Your task to perform on an android device: Is it going to rain today? Image 0: 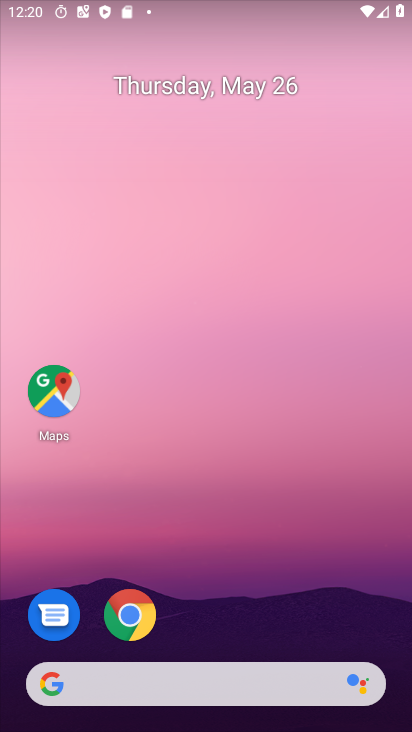
Step 0: drag from (240, 631) to (211, 219)
Your task to perform on an android device: Is it going to rain today? Image 1: 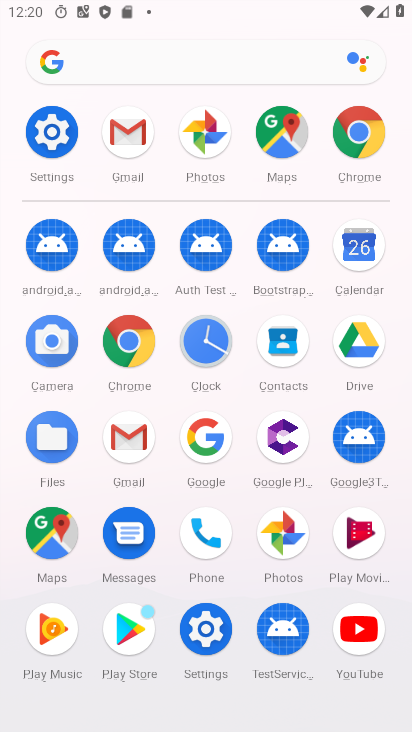
Step 1: click (284, 142)
Your task to perform on an android device: Is it going to rain today? Image 2: 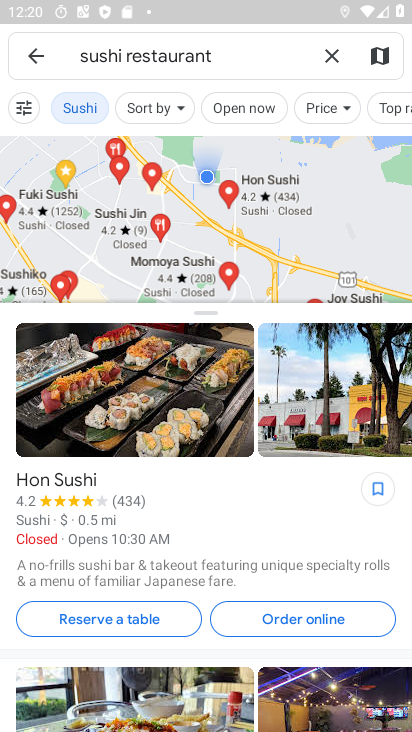
Step 2: press home button
Your task to perform on an android device: Is it going to rain today? Image 3: 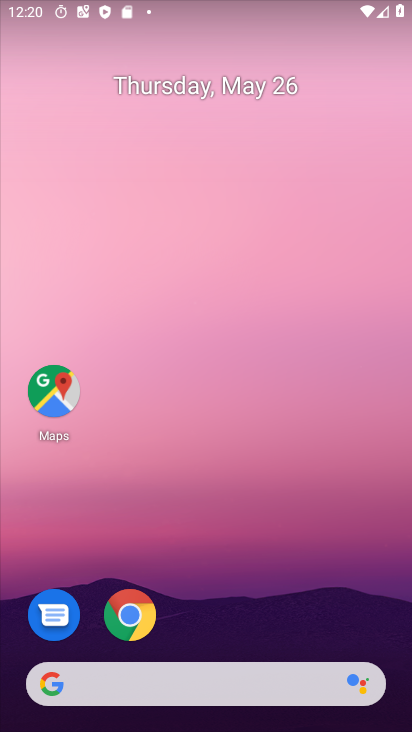
Step 3: click (134, 599)
Your task to perform on an android device: Is it going to rain today? Image 4: 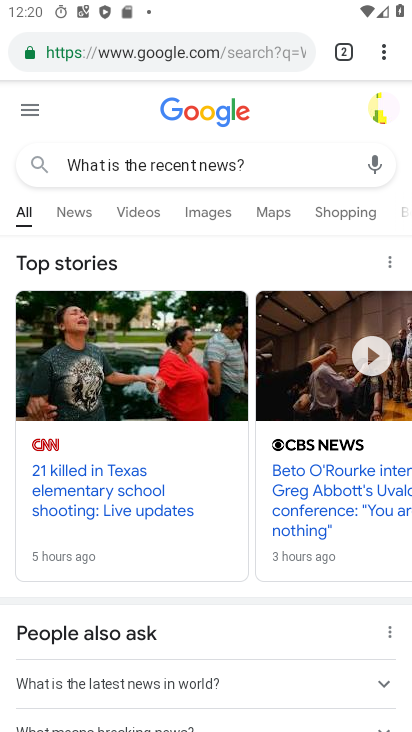
Step 4: click (285, 156)
Your task to perform on an android device: Is it going to rain today? Image 5: 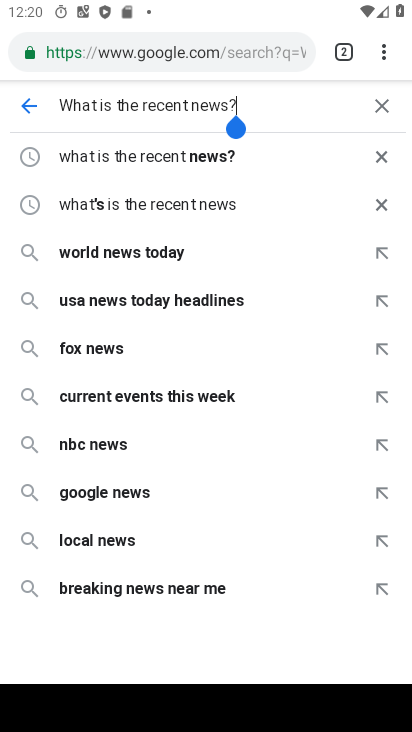
Step 5: click (387, 106)
Your task to perform on an android device: Is it going to rain today? Image 6: 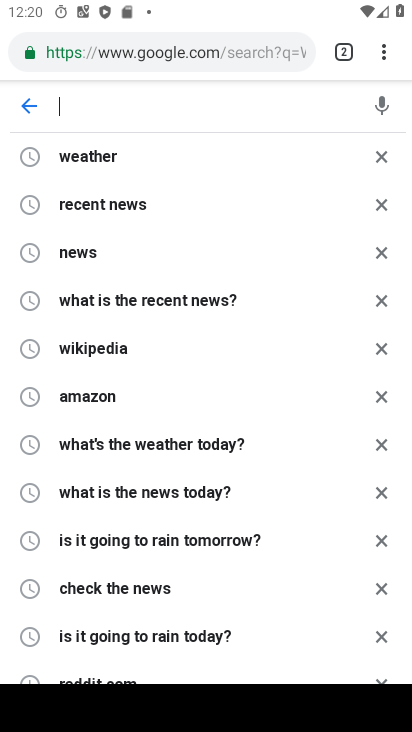
Step 6: click (171, 636)
Your task to perform on an android device: Is it going to rain today? Image 7: 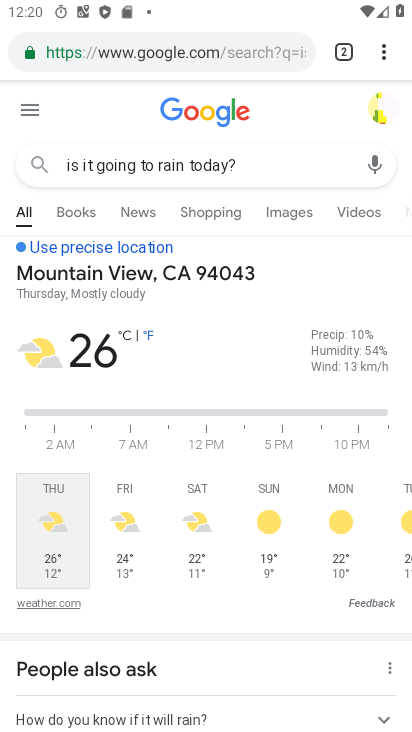
Step 7: task complete